Your task to perform on an android device: all mails in gmail Image 0: 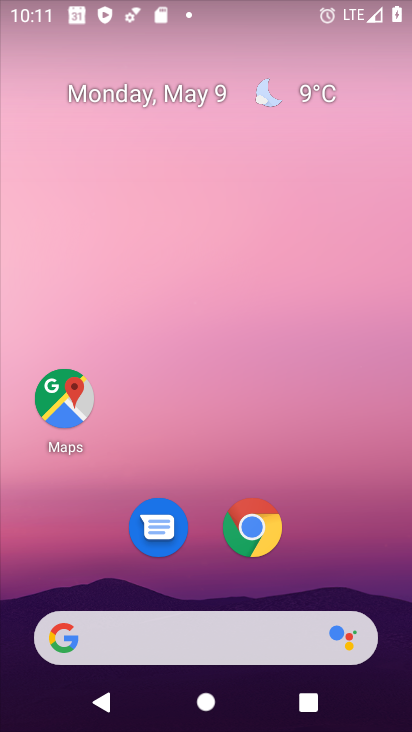
Step 0: drag from (398, 633) to (324, 119)
Your task to perform on an android device: all mails in gmail Image 1: 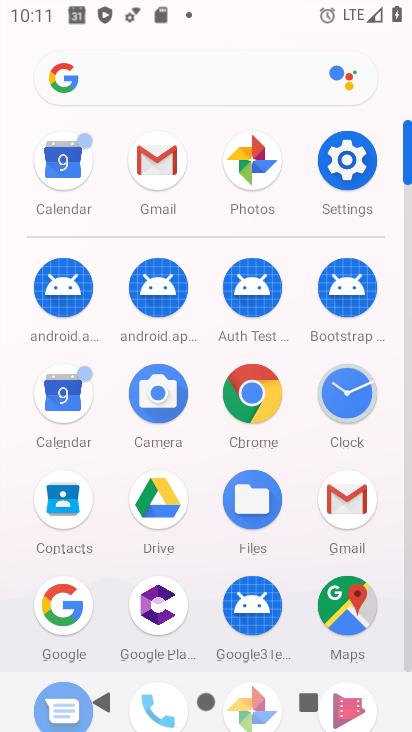
Step 1: click (405, 660)
Your task to perform on an android device: all mails in gmail Image 2: 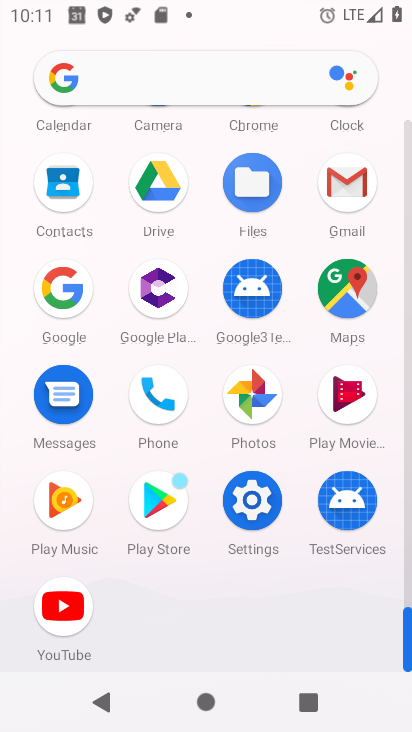
Step 2: click (346, 184)
Your task to perform on an android device: all mails in gmail Image 3: 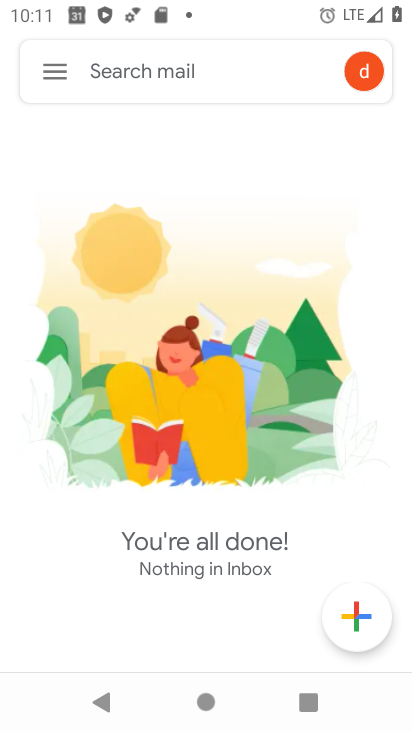
Step 3: click (56, 71)
Your task to perform on an android device: all mails in gmail Image 4: 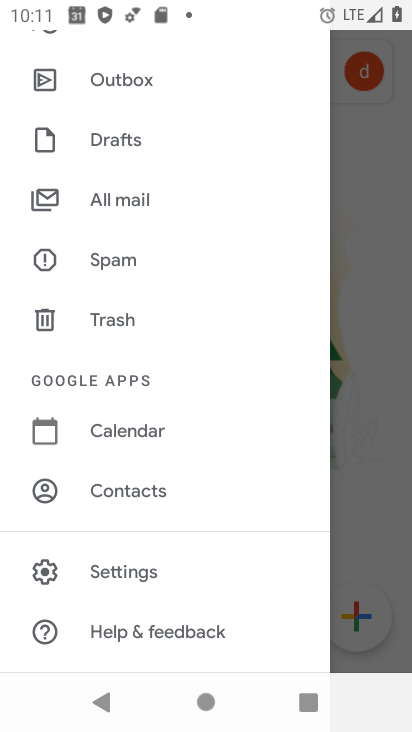
Step 4: click (118, 194)
Your task to perform on an android device: all mails in gmail Image 5: 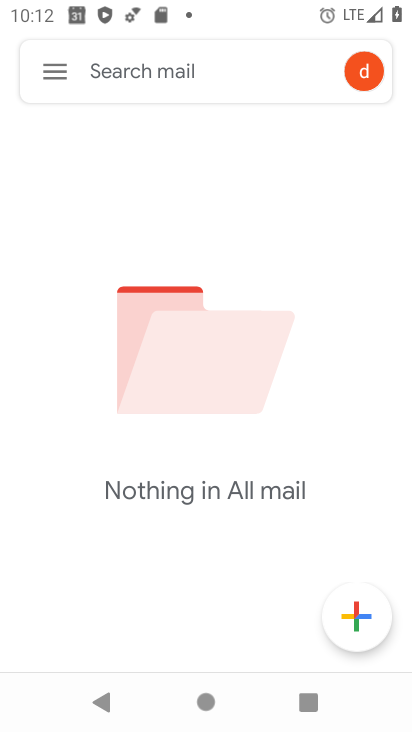
Step 5: task complete